Your task to perform on an android device: open sync settings in chrome Image 0: 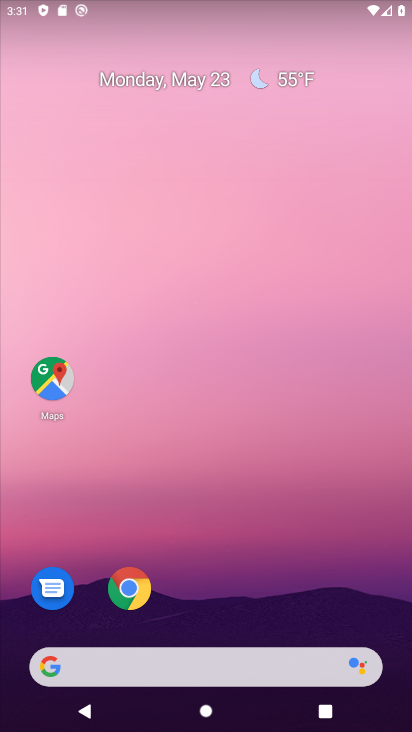
Step 0: click (138, 588)
Your task to perform on an android device: open sync settings in chrome Image 1: 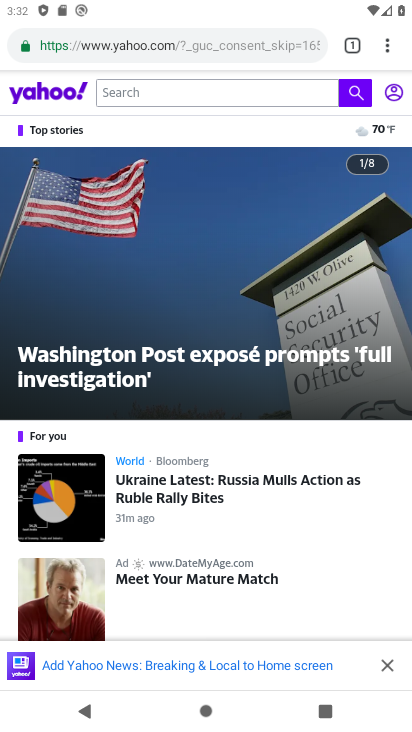
Step 1: click (381, 48)
Your task to perform on an android device: open sync settings in chrome Image 2: 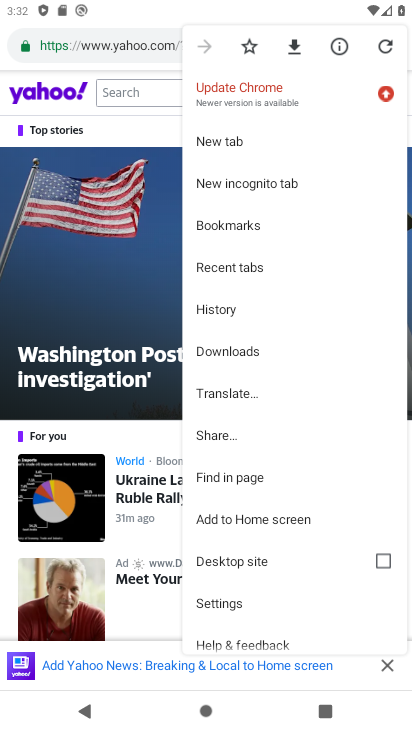
Step 2: click (261, 594)
Your task to perform on an android device: open sync settings in chrome Image 3: 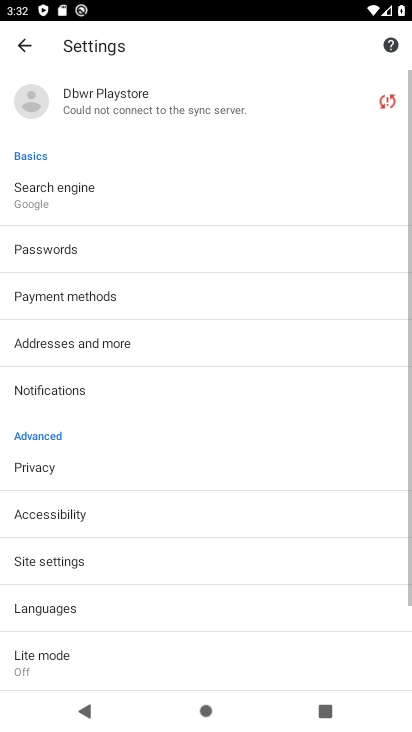
Step 3: click (64, 555)
Your task to perform on an android device: open sync settings in chrome Image 4: 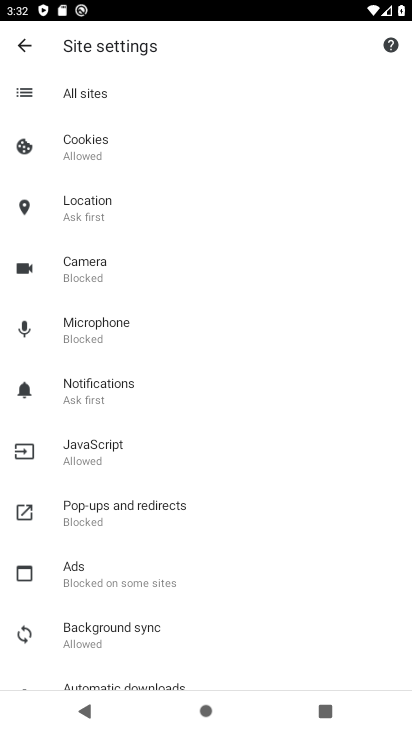
Step 4: click (115, 630)
Your task to perform on an android device: open sync settings in chrome Image 5: 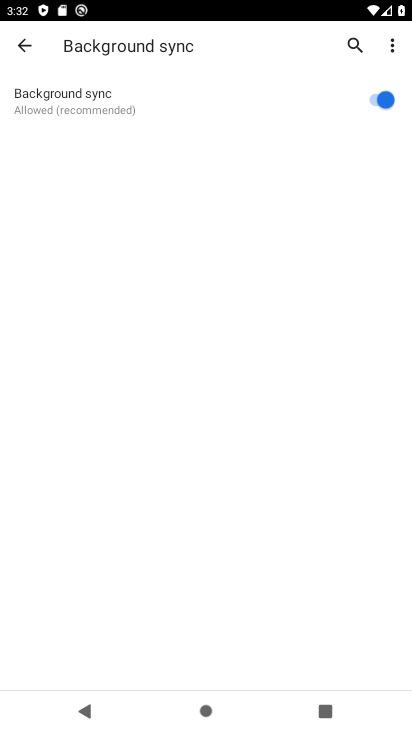
Step 5: task complete